Your task to perform on an android device: make emails show in primary in the gmail app Image 0: 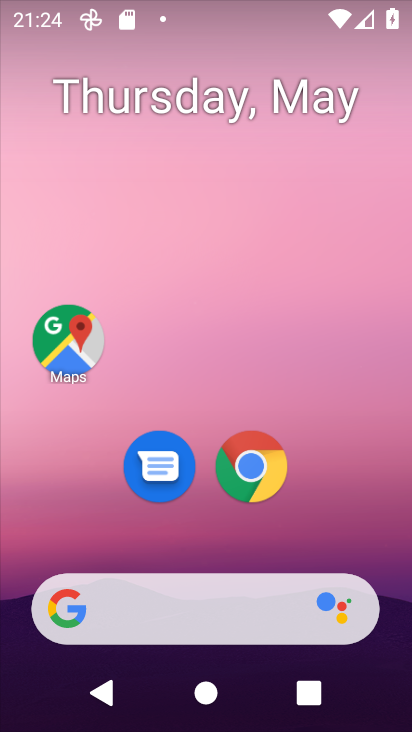
Step 0: drag from (345, 519) to (297, 63)
Your task to perform on an android device: make emails show in primary in the gmail app Image 1: 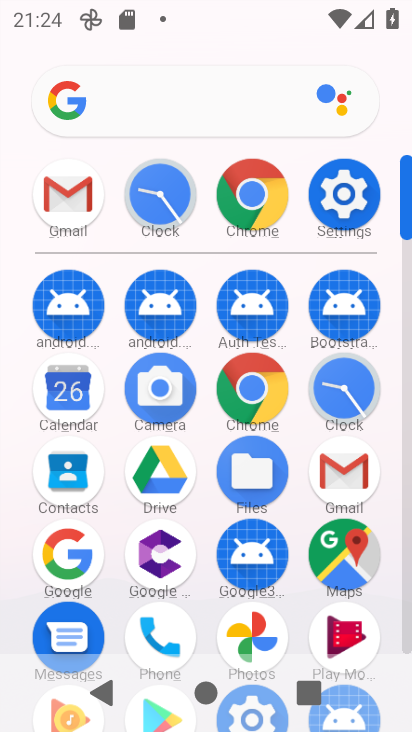
Step 1: click (52, 184)
Your task to perform on an android device: make emails show in primary in the gmail app Image 2: 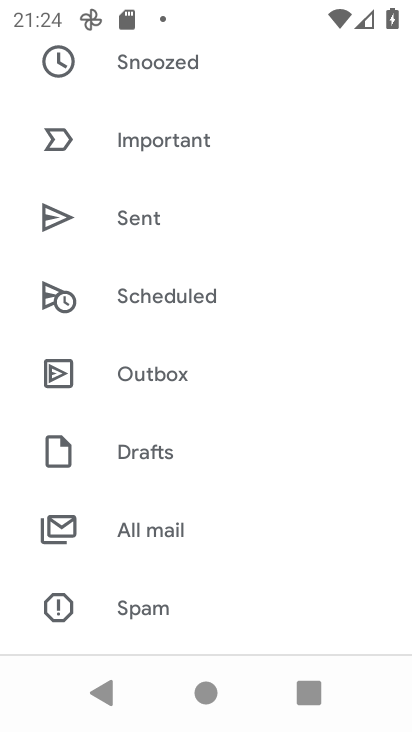
Step 2: task complete